Your task to perform on an android device: Open accessibility settings Image 0: 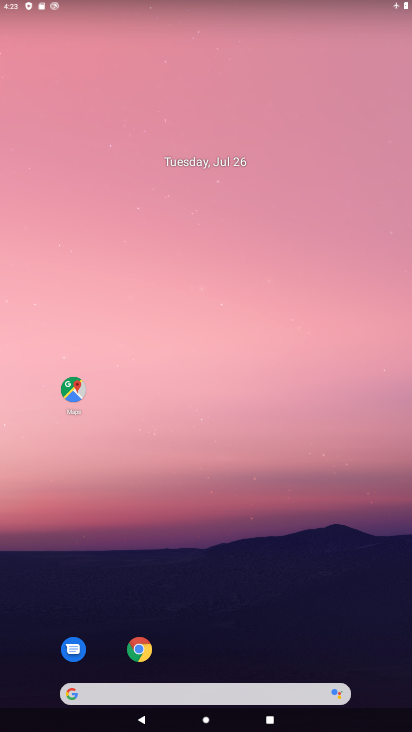
Step 0: drag from (196, 643) to (186, 312)
Your task to perform on an android device: Open accessibility settings Image 1: 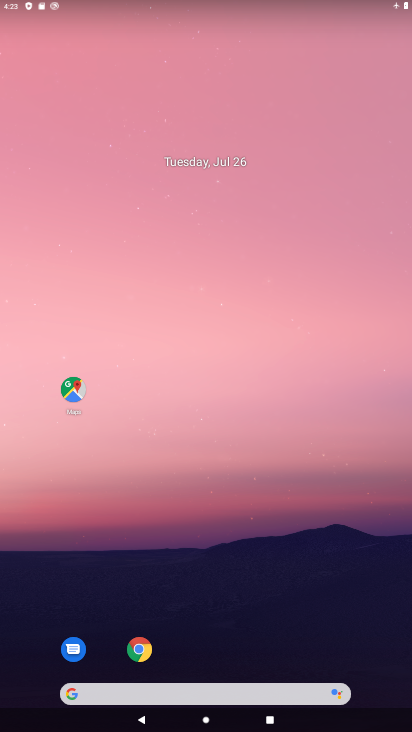
Step 1: drag from (217, 637) to (217, 129)
Your task to perform on an android device: Open accessibility settings Image 2: 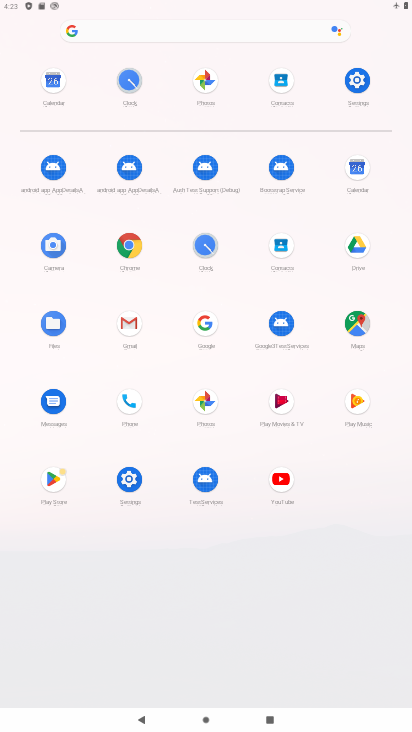
Step 2: click (355, 67)
Your task to perform on an android device: Open accessibility settings Image 3: 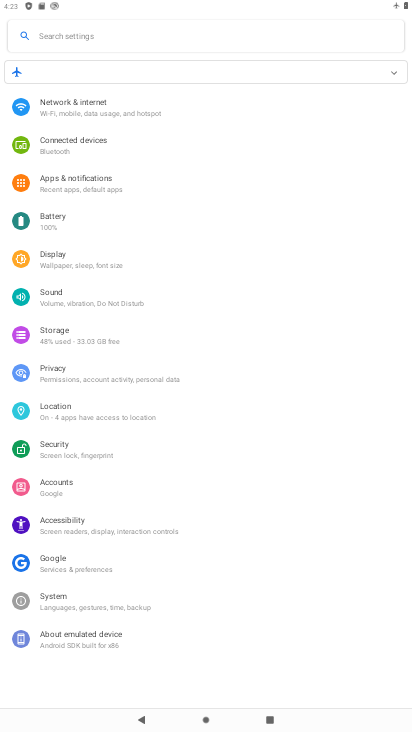
Step 3: click (102, 531)
Your task to perform on an android device: Open accessibility settings Image 4: 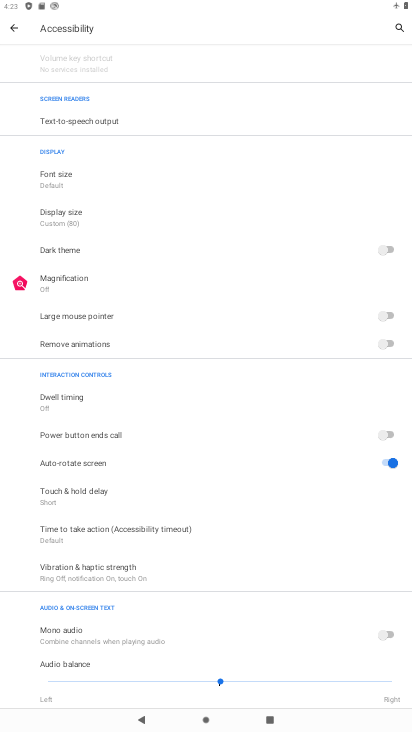
Step 4: task complete